Your task to perform on an android device: move an email to a new category in the gmail app Image 0: 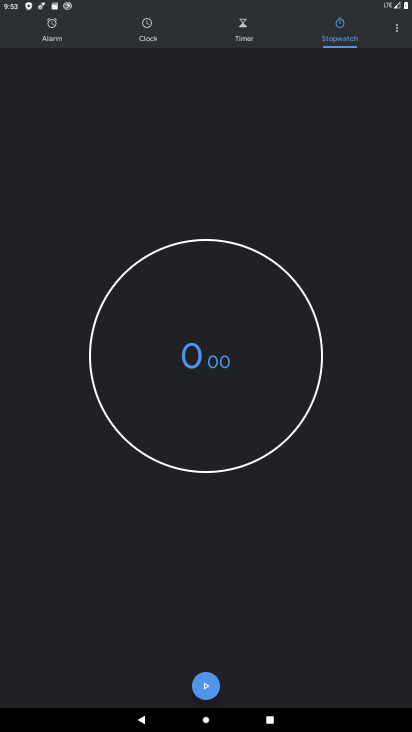
Step 0: press home button
Your task to perform on an android device: move an email to a new category in the gmail app Image 1: 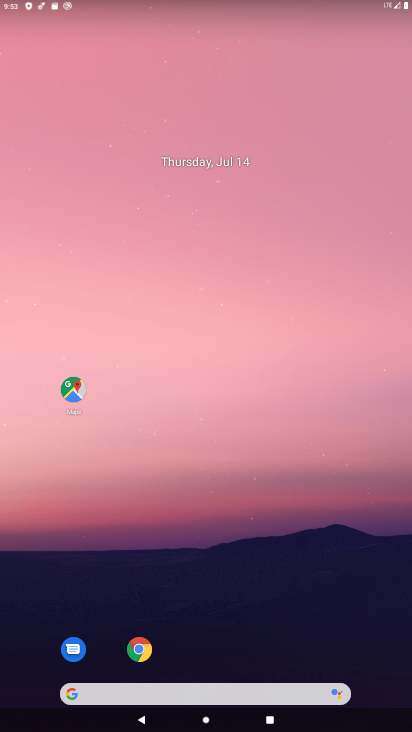
Step 1: drag from (179, 649) to (216, 232)
Your task to perform on an android device: move an email to a new category in the gmail app Image 2: 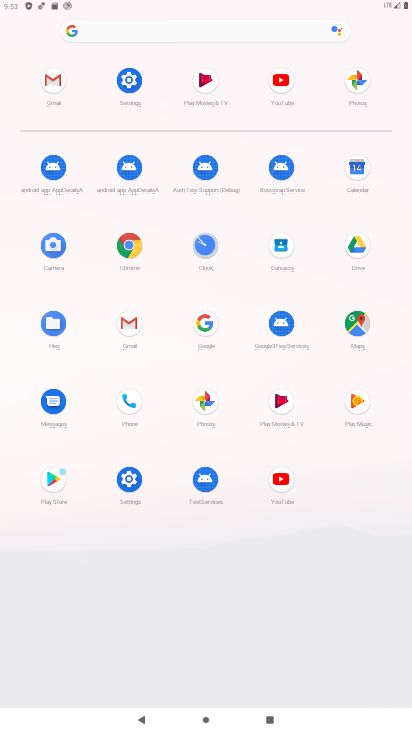
Step 2: click (68, 89)
Your task to perform on an android device: move an email to a new category in the gmail app Image 3: 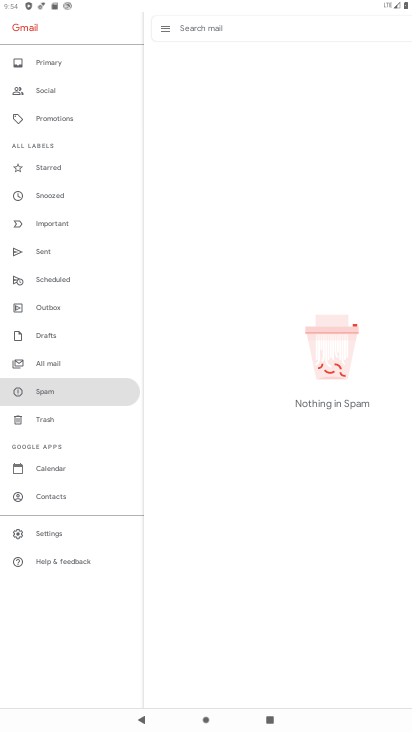
Step 3: click (48, 360)
Your task to perform on an android device: move an email to a new category in the gmail app Image 4: 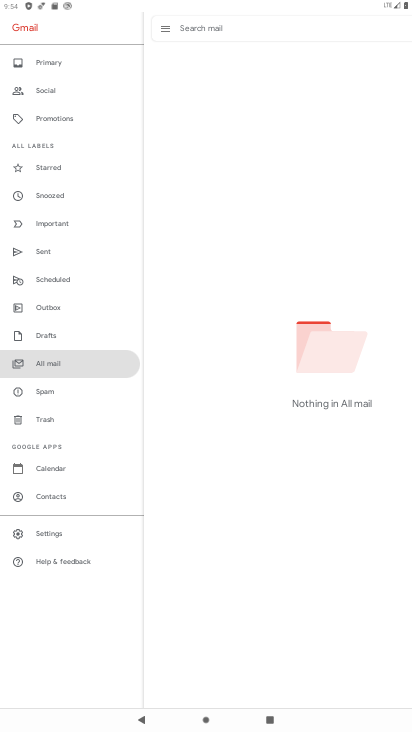
Step 4: task complete